Your task to perform on an android device: Open Yahoo.com Image 0: 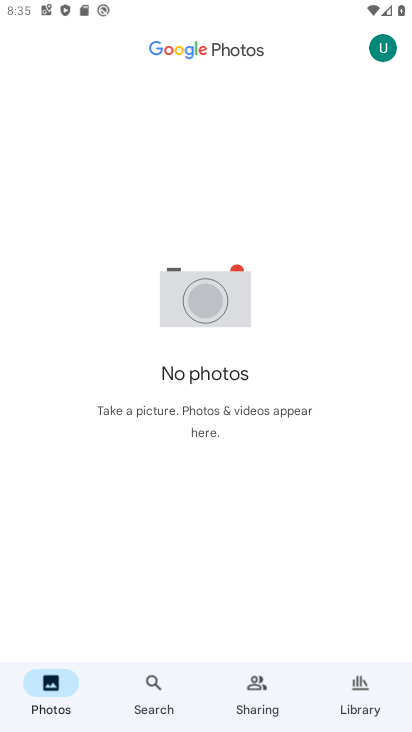
Step 0: press home button
Your task to perform on an android device: Open Yahoo.com Image 1: 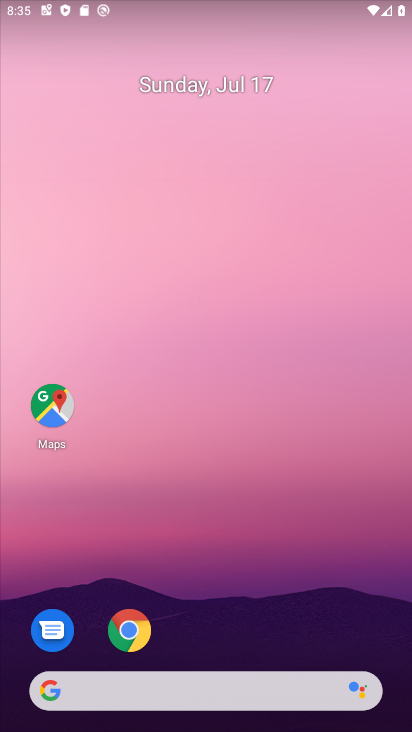
Step 1: click (229, 694)
Your task to perform on an android device: Open Yahoo.com Image 2: 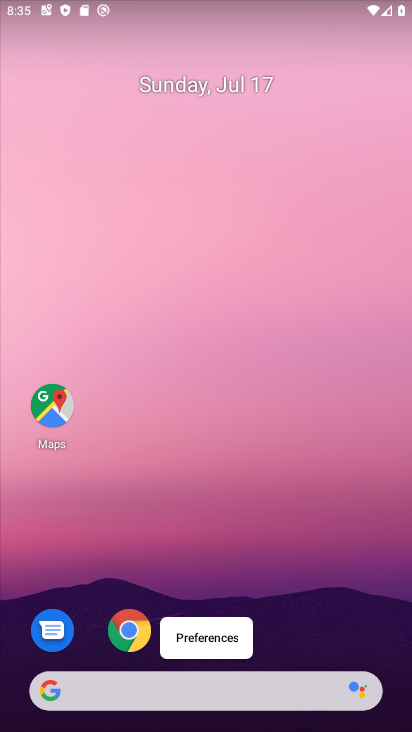
Step 2: drag from (278, 680) to (185, 1)
Your task to perform on an android device: Open Yahoo.com Image 3: 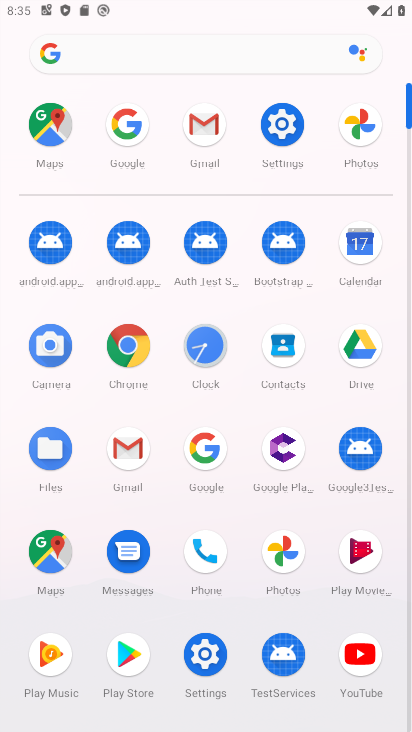
Step 3: click (213, 53)
Your task to perform on an android device: Open Yahoo.com Image 4: 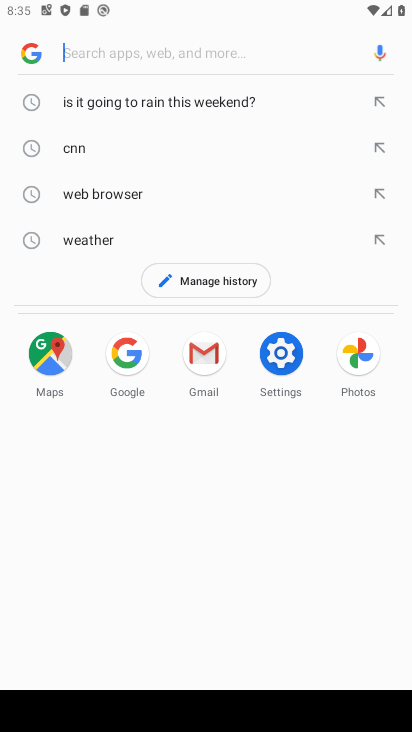
Step 4: type "yahoo.com"
Your task to perform on an android device: Open Yahoo.com Image 5: 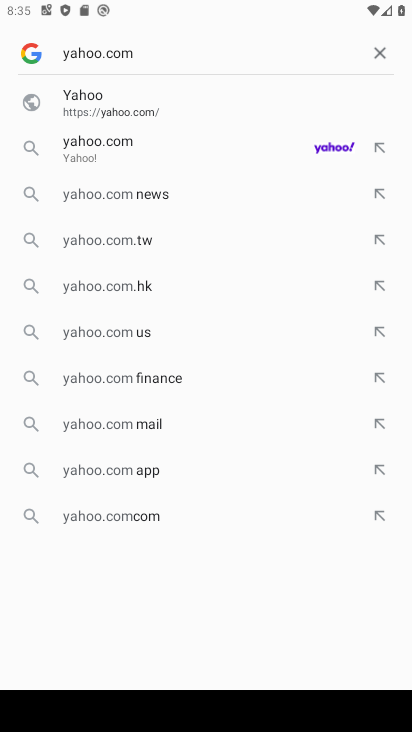
Step 5: click (194, 84)
Your task to perform on an android device: Open Yahoo.com Image 6: 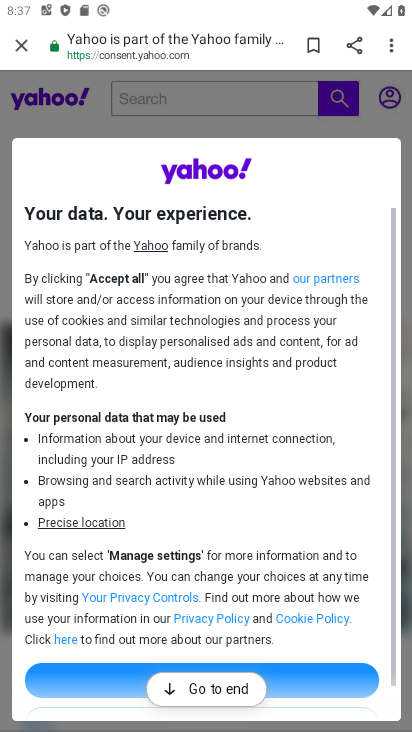
Step 6: task complete